Your task to perform on an android device: Open the map Image 0: 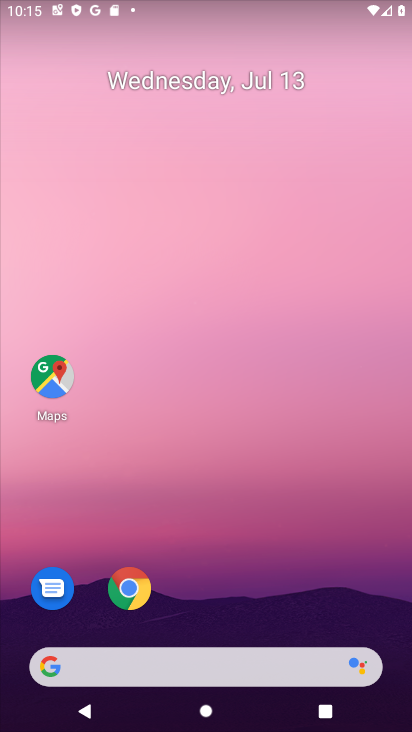
Step 0: click (49, 380)
Your task to perform on an android device: Open the map Image 1: 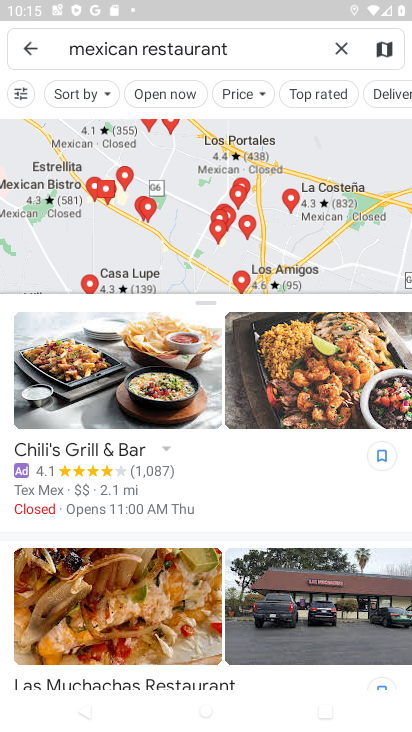
Step 1: task complete